Your task to perform on an android device: turn on wifi Image 0: 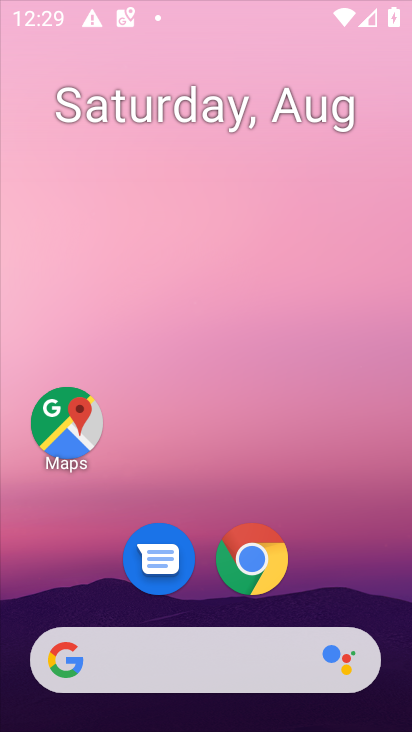
Step 0: click (262, 546)
Your task to perform on an android device: turn on wifi Image 1: 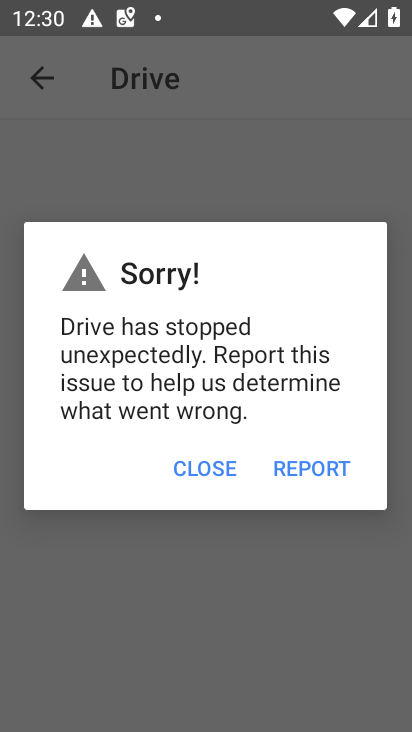
Step 1: press home button
Your task to perform on an android device: turn on wifi Image 2: 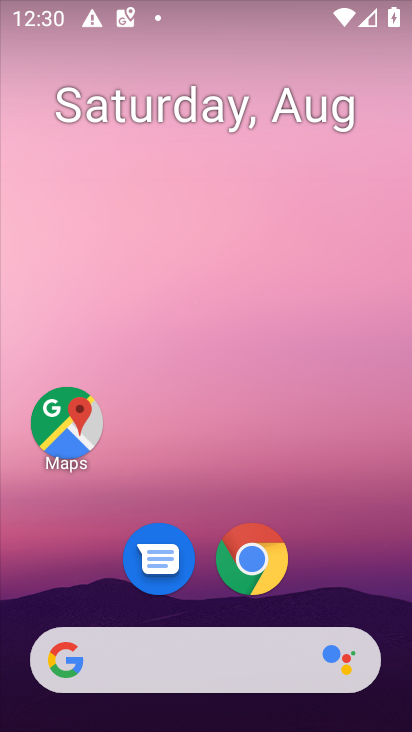
Step 2: drag from (359, 595) to (237, 56)
Your task to perform on an android device: turn on wifi Image 3: 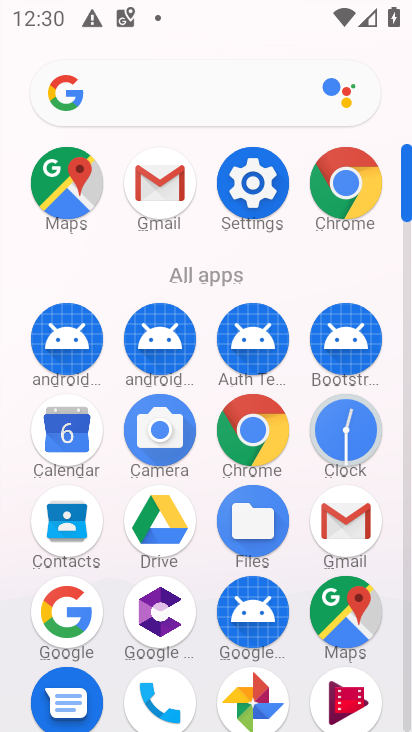
Step 3: click (273, 207)
Your task to perform on an android device: turn on wifi Image 4: 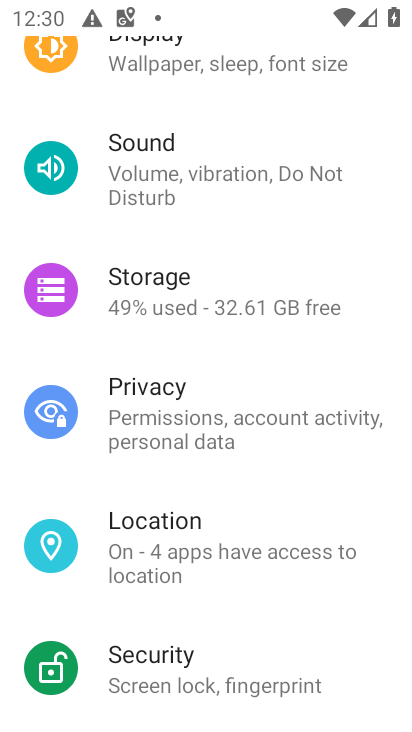
Step 4: drag from (312, 98) to (310, 694)
Your task to perform on an android device: turn on wifi Image 5: 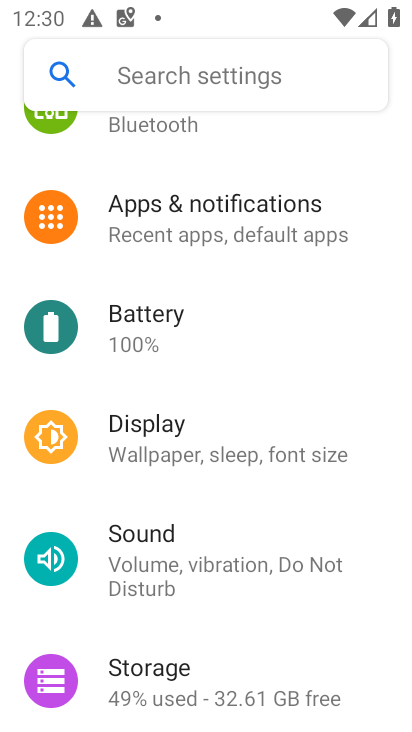
Step 5: drag from (241, 159) to (189, 723)
Your task to perform on an android device: turn on wifi Image 6: 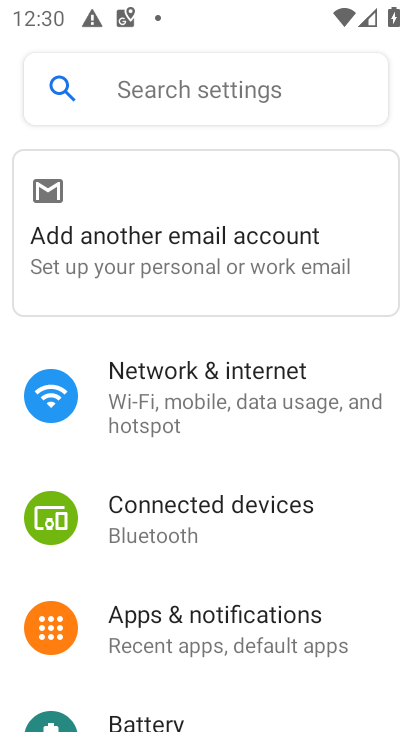
Step 6: click (274, 416)
Your task to perform on an android device: turn on wifi Image 7: 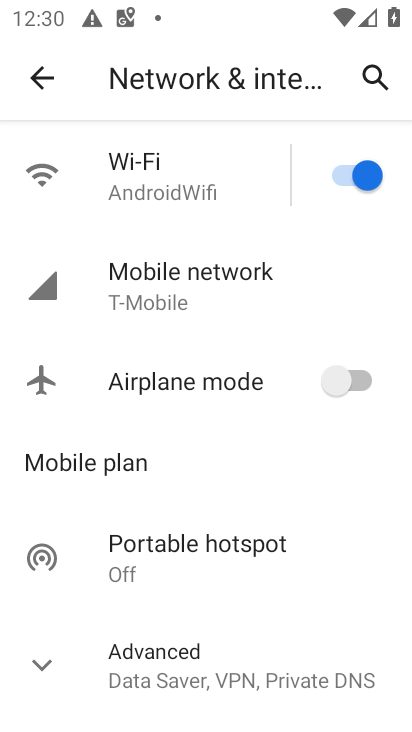
Step 7: task complete